Your task to perform on an android device: Go to privacy settings Image 0: 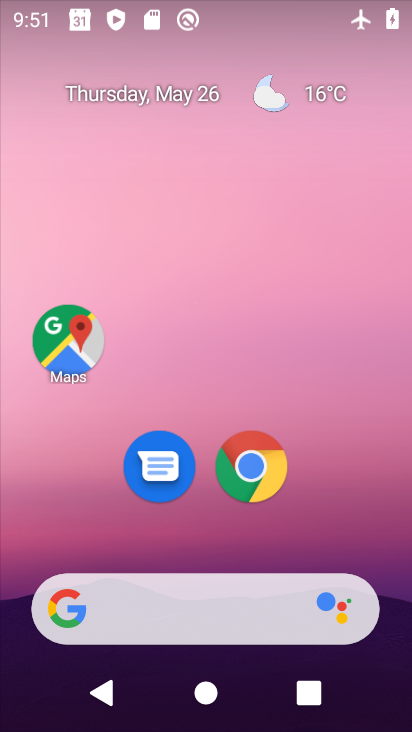
Step 0: drag from (322, 524) to (189, 36)
Your task to perform on an android device: Go to privacy settings Image 1: 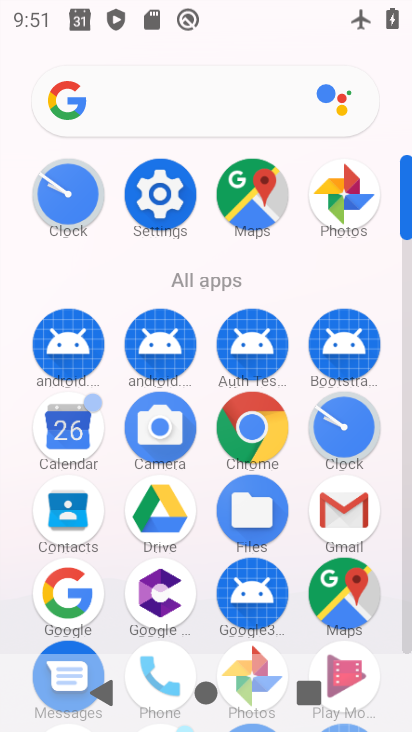
Step 1: click (172, 196)
Your task to perform on an android device: Go to privacy settings Image 2: 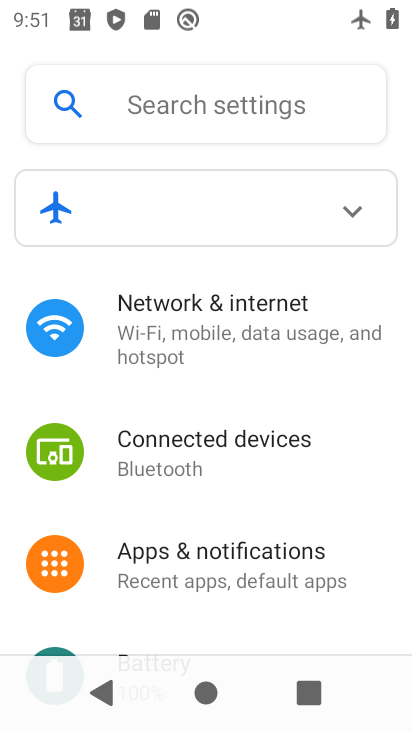
Step 2: drag from (222, 515) to (149, 191)
Your task to perform on an android device: Go to privacy settings Image 3: 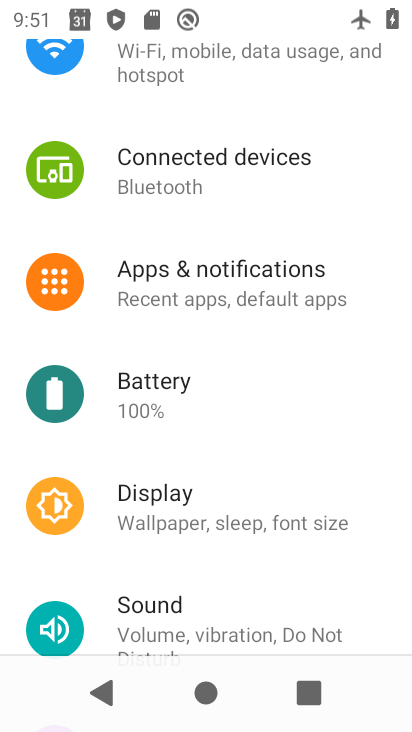
Step 3: drag from (222, 530) to (193, 277)
Your task to perform on an android device: Go to privacy settings Image 4: 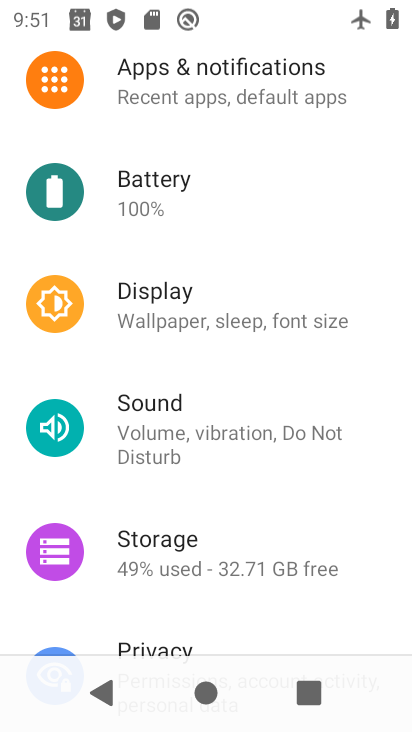
Step 4: drag from (181, 590) to (146, 282)
Your task to perform on an android device: Go to privacy settings Image 5: 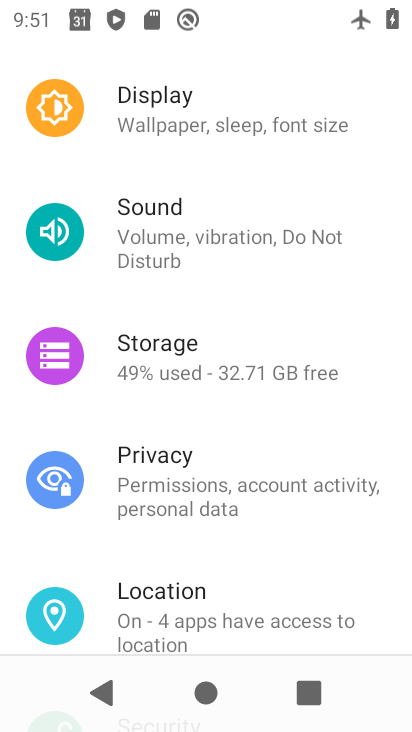
Step 5: click (149, 458)
Your task to perform on an android device: Go to privacy settings Image 6: 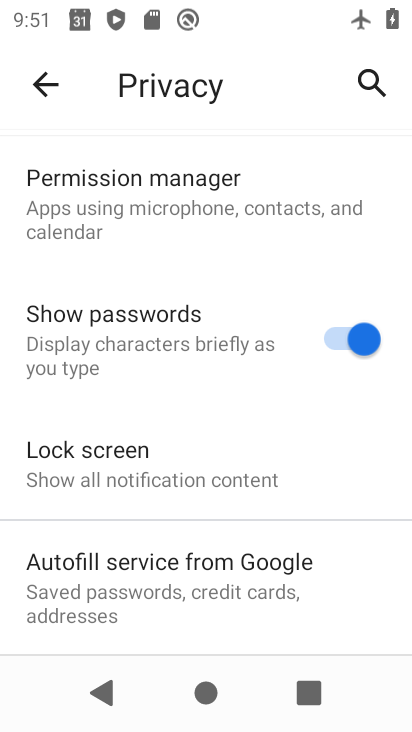
Step 6: task complete